Your task to perform on an android device: open app "Speedtest by Ookla" Image 0: 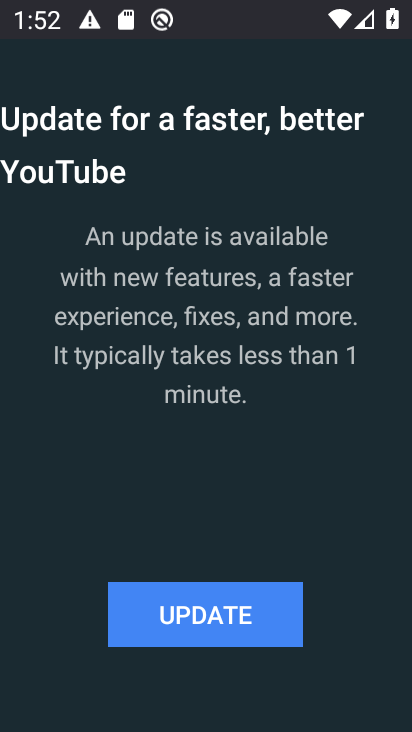
Step 0: press back button
Your task to perform on an android device: open app "Speedtest by Ookla" Image 1: 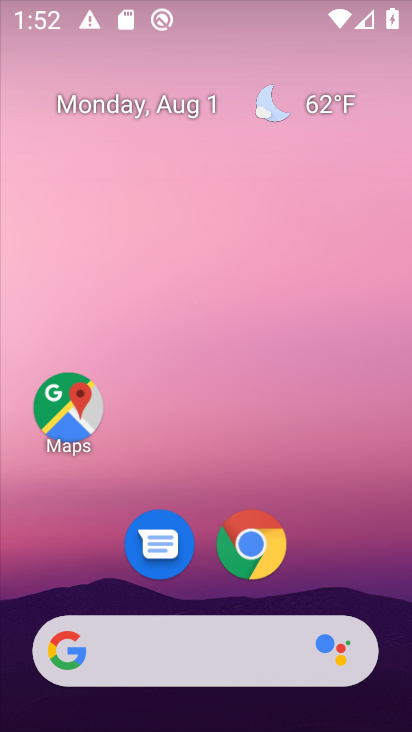
Step 1: drag from (338, 603) to (249, 2)
Your task to perform on an android device: open app "Speedtest by Ookla" Image 2: 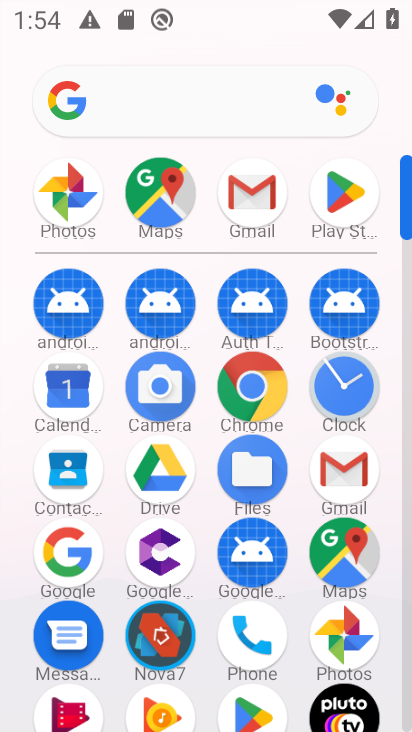
Step 2: click (345, 203)
Your task to perform on an android device: open app "Speedtest by Ookla" Image 3: 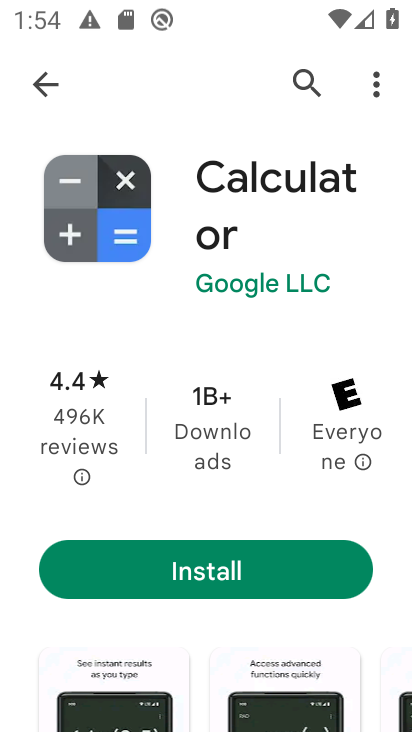
Step 3: press back button
Your task to perform on an android device: open app "Speedtest by Ookla" Image 4: 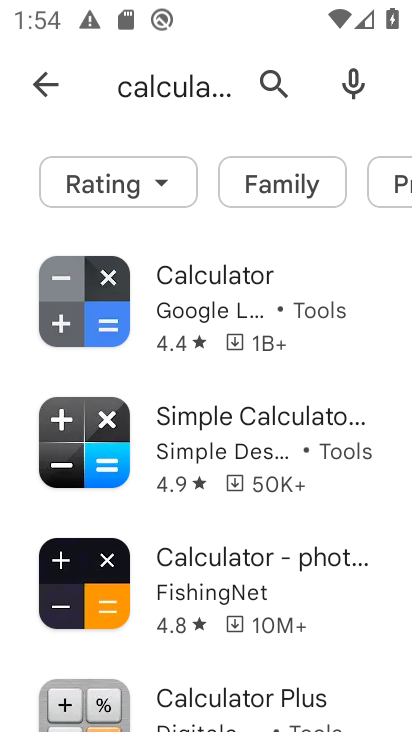
Step 4: press back button
Your task to perform on an android device: open app "Speedtest by Ookla" Image 5: 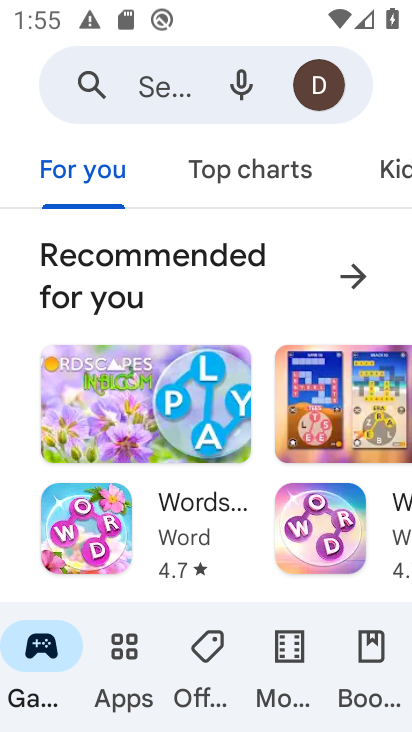
Step 5: click (158, 107)
Your task to perform on an android device: open app "Speedtest by Ookla" Image 6: 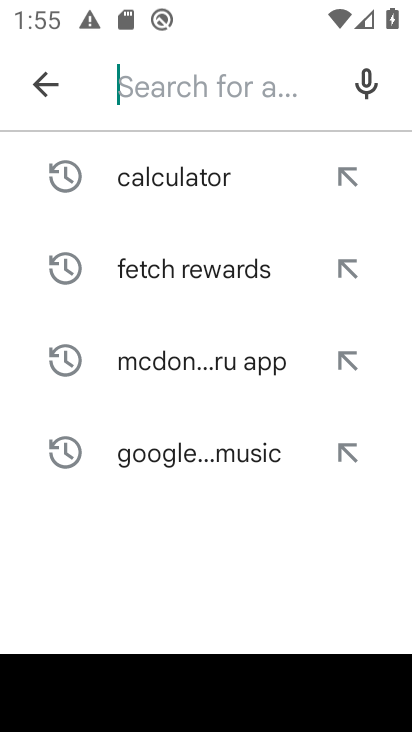
Step 6: type "Speedtest by Ookla"
Your task to perform on an android device: open app "Speedtest by Ookla" Image 7: 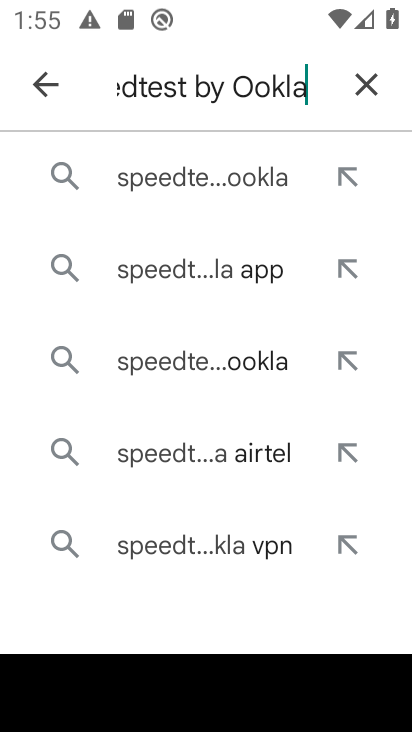
Step 7: click (196, 180)
Your task to perform on an android device: open app "Speedtest by Ookla" Image 8: 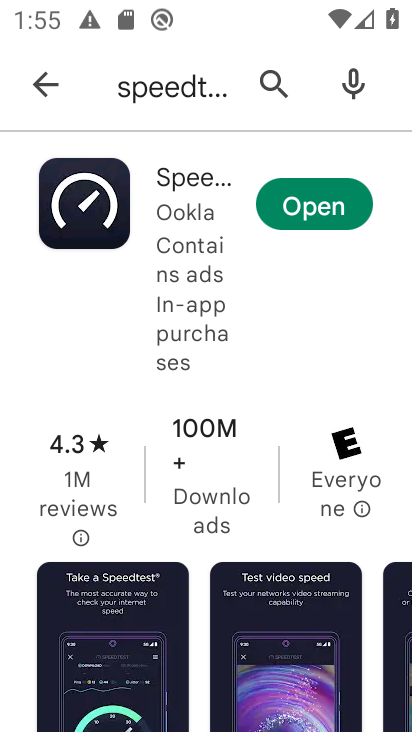
Step 8: click (288, 216)
Your task to perform on an android device: open app "Speedtest by Ookla" Image 9: 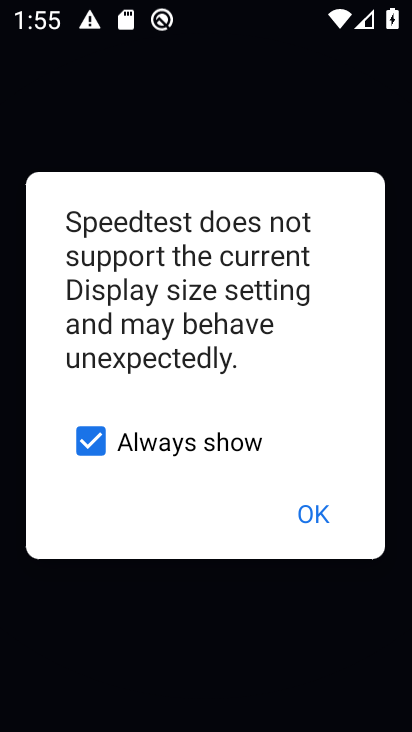
Step 9: task complete